Your task to perform on an android device: check android version Image 0: 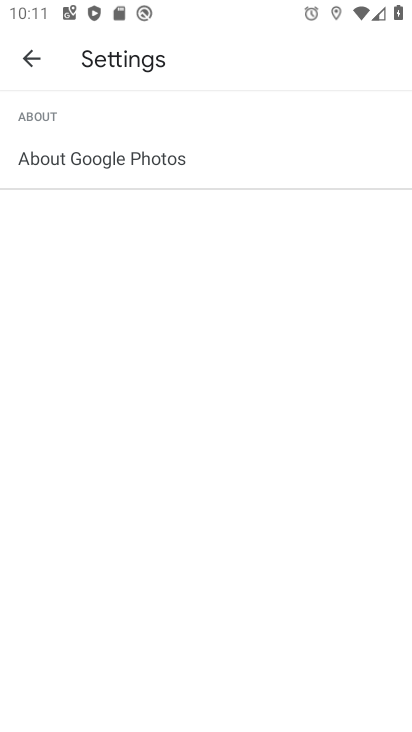
Step 0: press home button
Your task to perform on an android device: check android version Image 1: 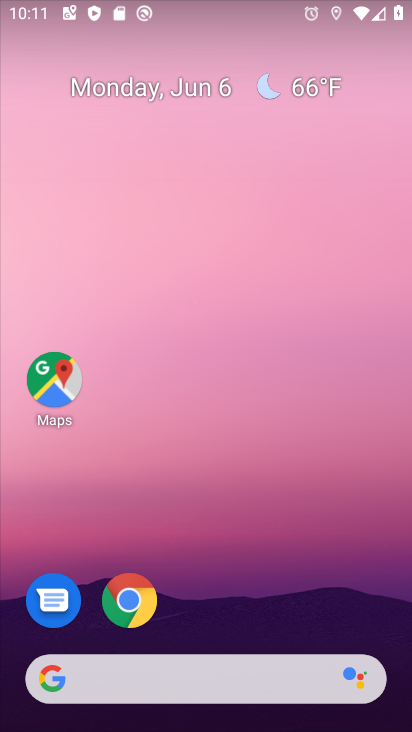
Step 1: drag from (75, 539) to (143, 430)
Your task to perform on an android device: check android version Image 2: 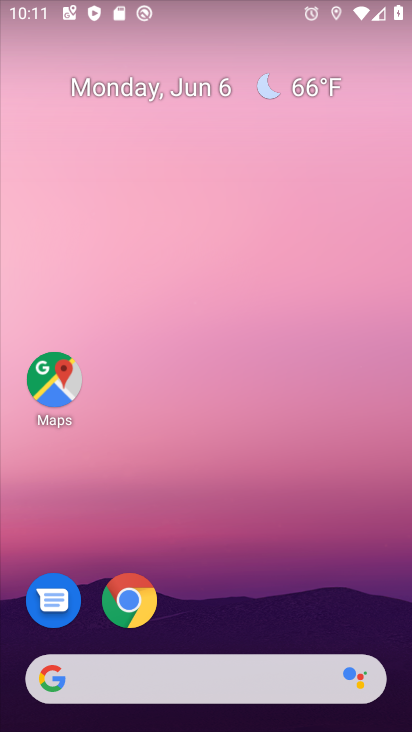
Step 2: drag from (6, 664) to (310, 179)
Your task to perform on an android device: check android version Image 3: 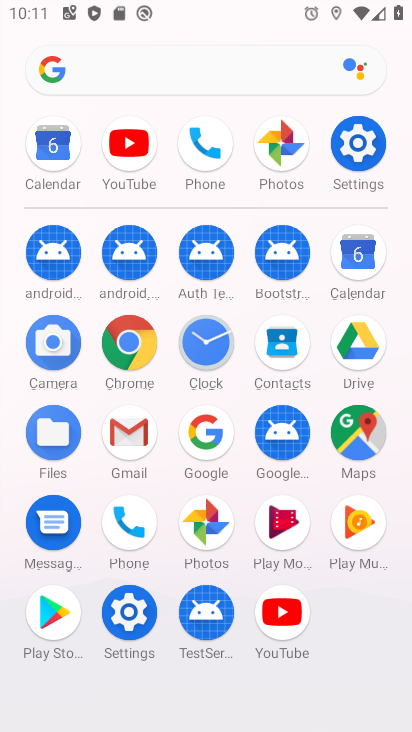
Step 3: click (363, 154)
Your task to perform on an android device: check android version Image 4: 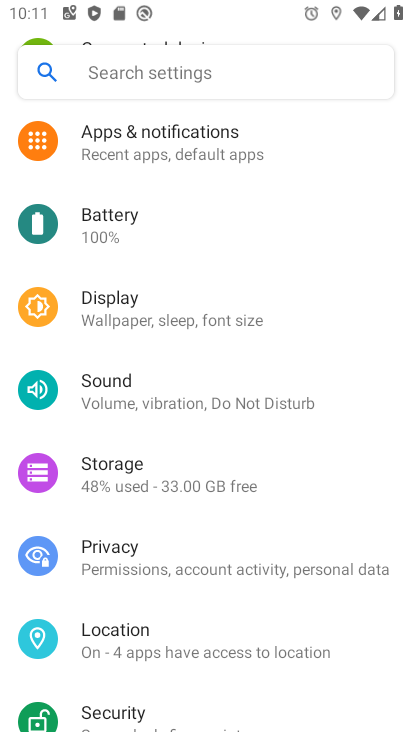
Step 4: drag from (134, 687) to (383, 52)
Your task to perform on an android device: check android version Image 5: 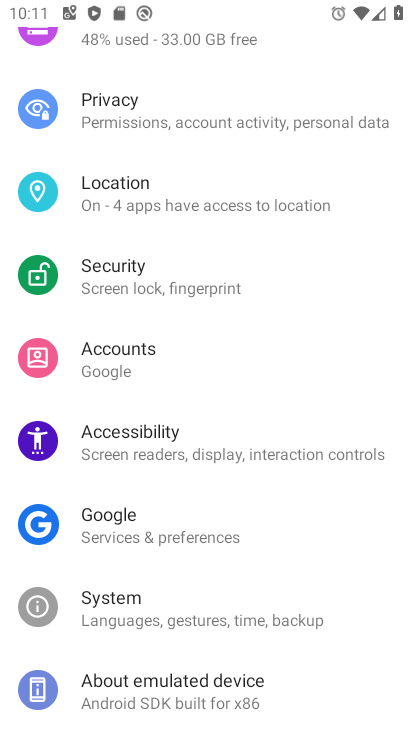
Step 5: drag from (104, 720) to (282, 155)
Your task to perform on an android device: check android version Image 6: 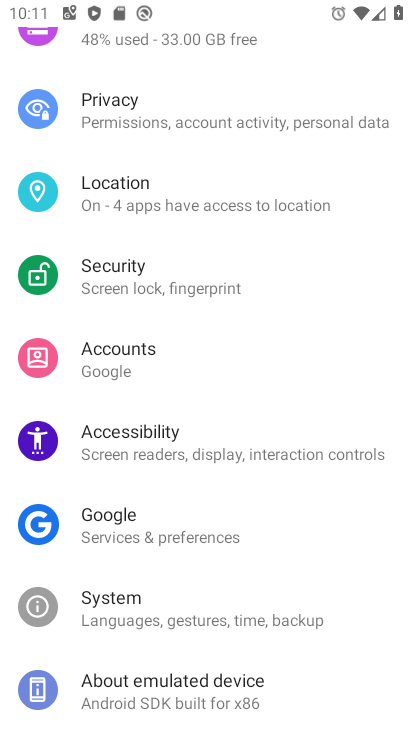
Step 6: click (226, 689)
Your task to perform on an android device: check android version Image 7: 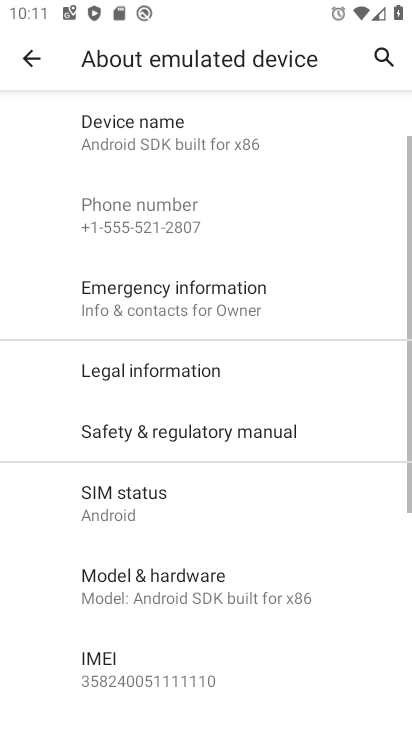
Step 7: task complete